Your task to perform on an android device: turn on bluetooth scan Image 0: 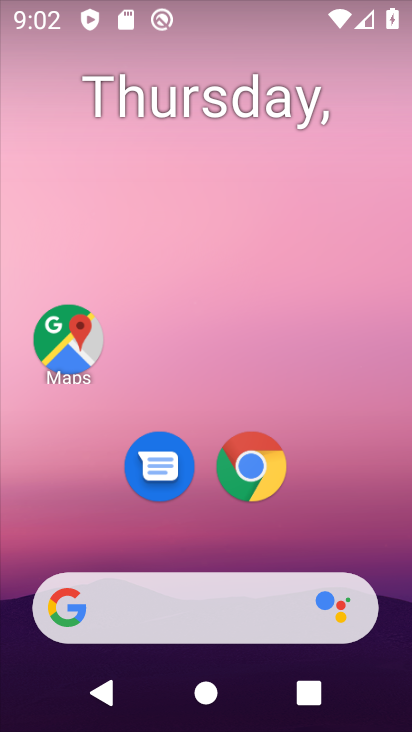
Step 0: drag from (394, 633) to (331, 62)
Your task to perform on an android device: turn on bluetooth scan Image 1: 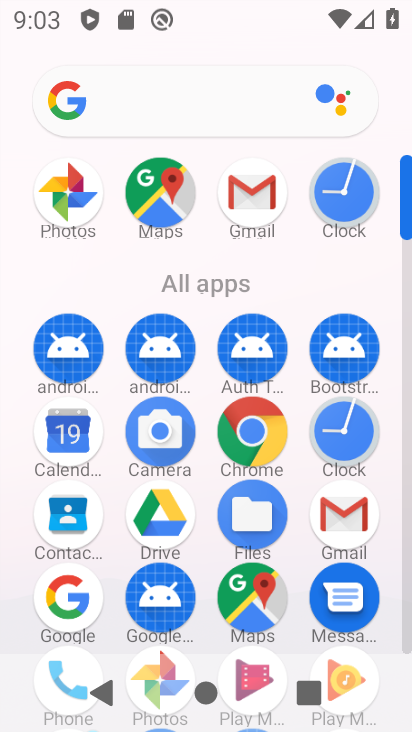
Step 1: drag from (209, 635) to (210, 163)
Your task to perform on an android device: turn on bluetooth scan Image 2: 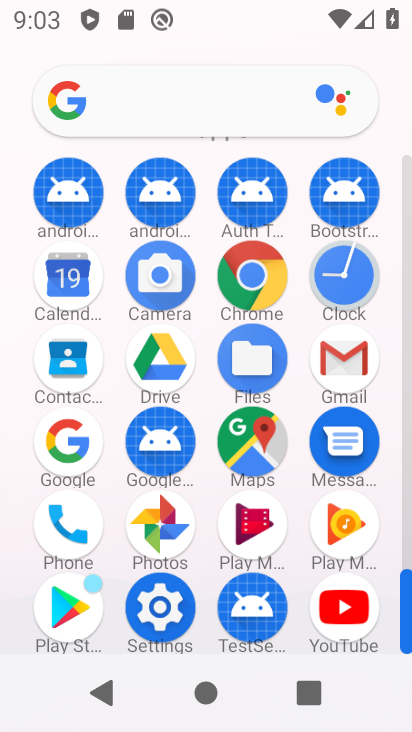
Step 2: click (154, 623)
Your task to perform on an android device: turn on bluetooth scan Image 3: 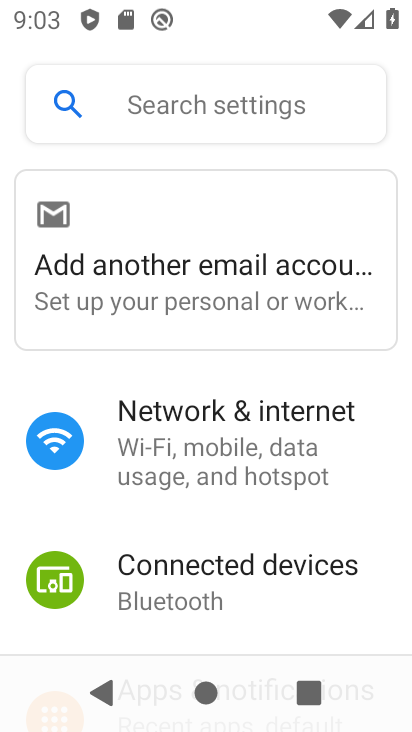
Step 3: drag from (172, 589) to (152, 187)
Your task to perform on an android device: turn on bluetooth scan Image 4: 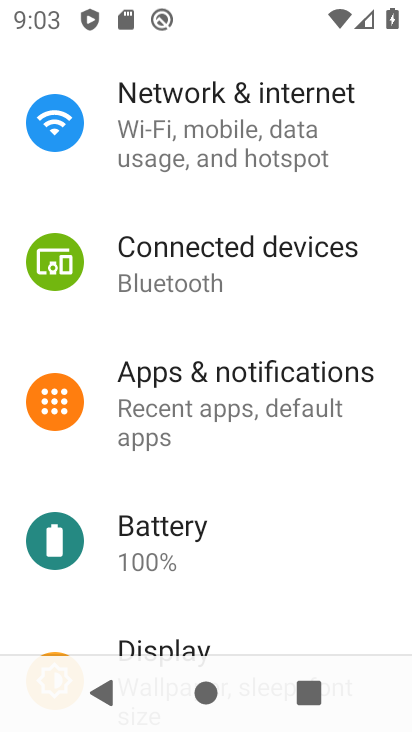
Step 4: drag from (216, 611) to (198, 137)
Your task to perform on an android device: turn on bluetooth scan Image 5: 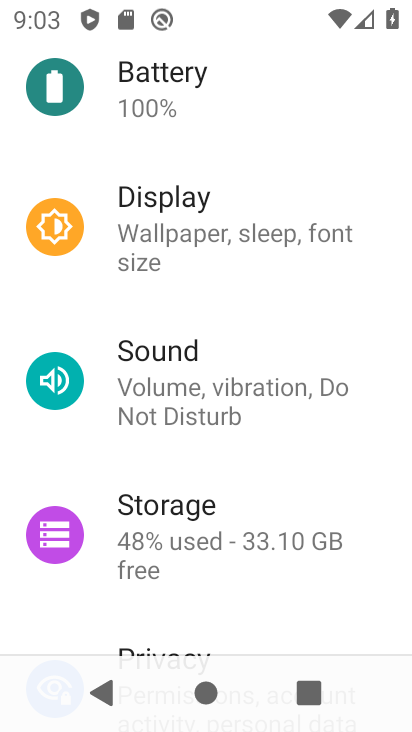
Step 5: drag from (189, 561) to (188, 96)
Your task to perform on an android device: turn on bluetooth scan Image 6: 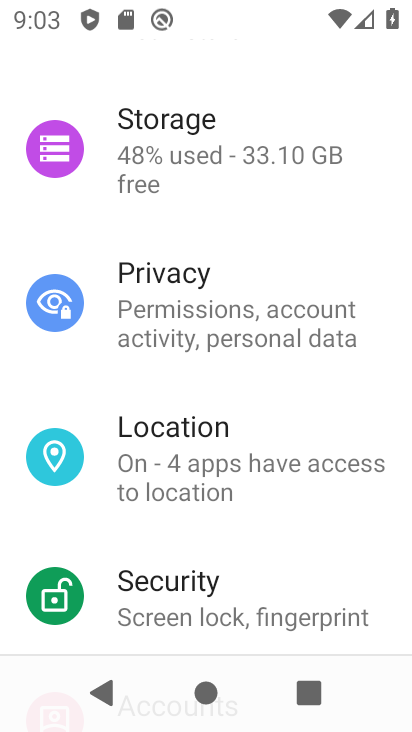
Step 6: click (185, 480)
Your task to perform on an android device: turn on bluetooth scan Image 7: 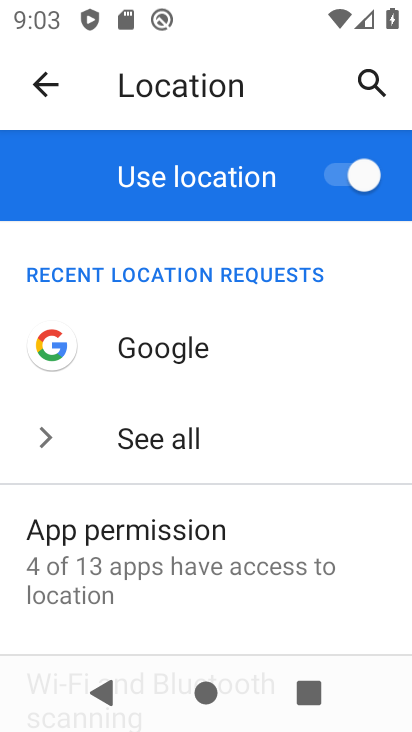
Step 7: drag from (177, 608) to (207, 92)
Your task to perform on an android device: turn on bluetooth scan Image 8: 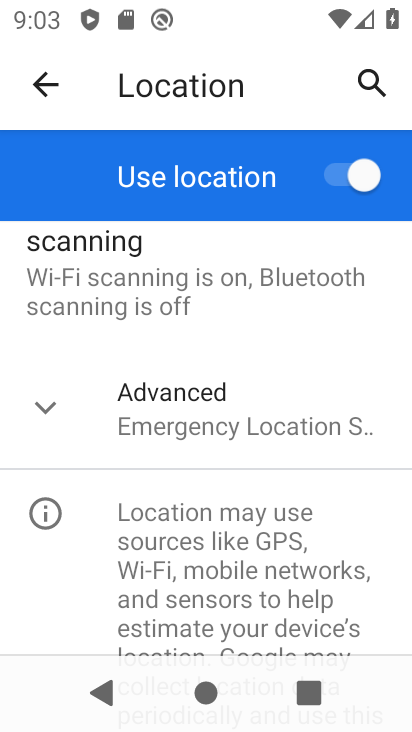
Step 8: drag from (168, 545) to (176, 214)
Your task to perform on an android device: turn on bluetooth scan Image 9: 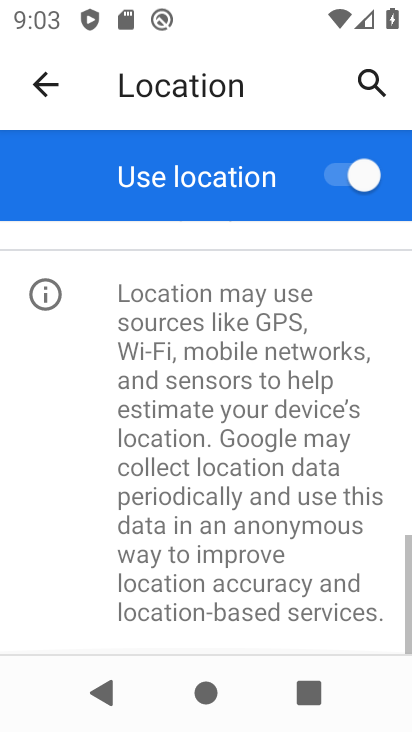
Step 9: drag from (147, 298) to (160, 731)
Your task to perform on an android device: turn on bluetooth scan Image 10: 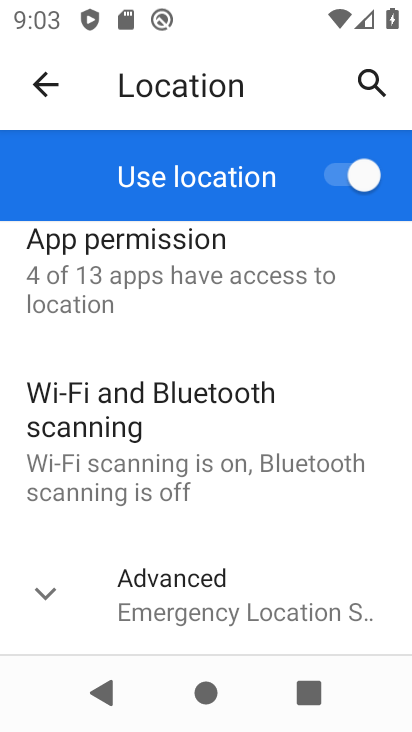
Step 10: click (166, 427)
Your task to perform on an android device: turn on bluetooth scan Image 11: 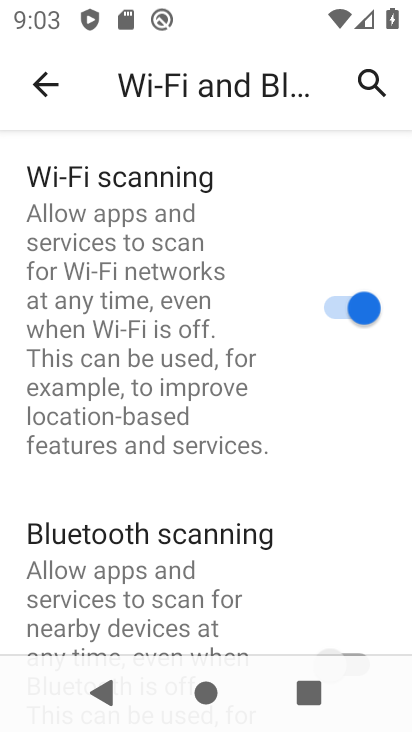
Step 11: click (244, 594)
Your task to perform on an android device: turn on bluetooth scan Image 12: 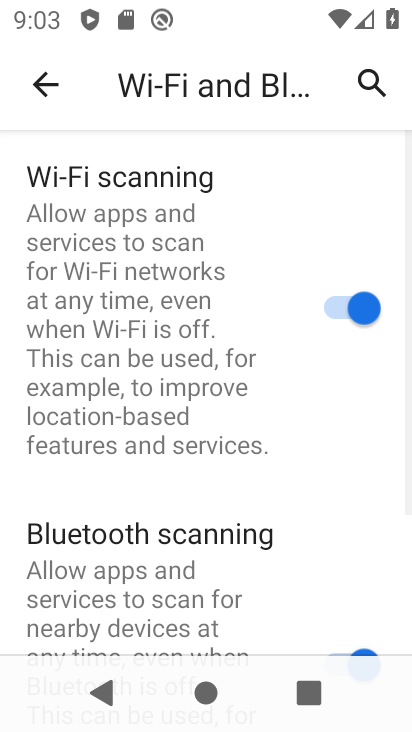
Step 12: task complete